Your task to perform on an android device: toggle airplane mode Image 0: 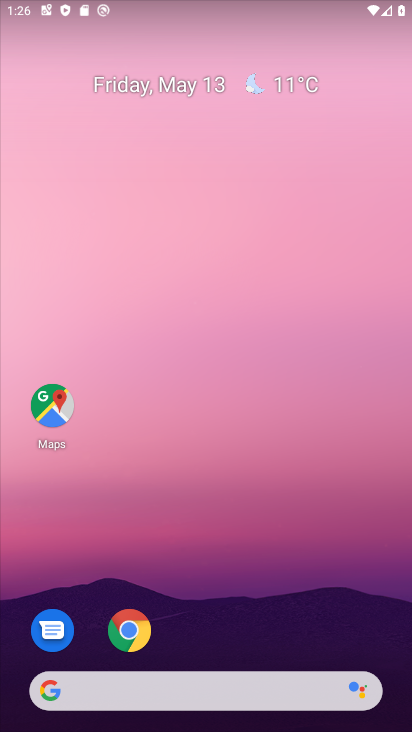
Step 0: drag from (321, 644) to (357, 0)
Your task to perform on an android device: toggle airplane mode Image 1: 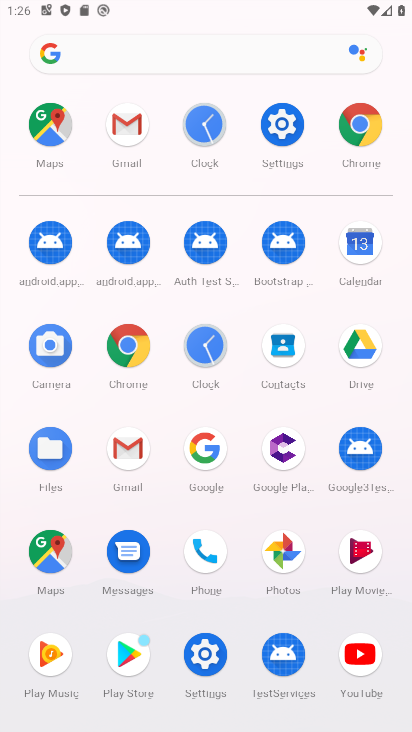
Step 1: click (290, 133)
Your task to perform on an android device: toggle airplane mode Image 2: 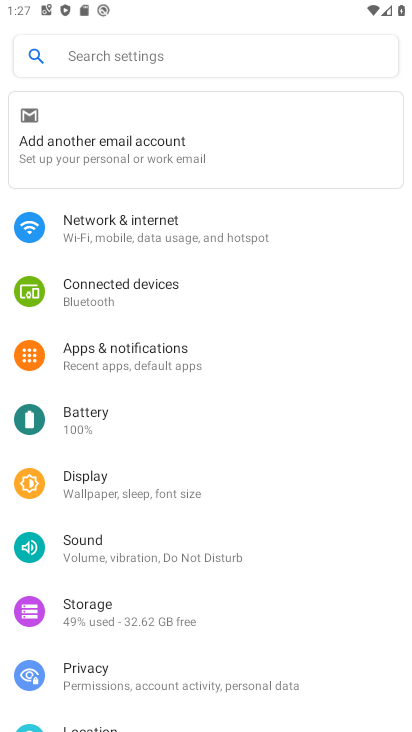
Step 2: click (117, 235)
Your task to perform on an android device: toggle airplane mode Image 3: 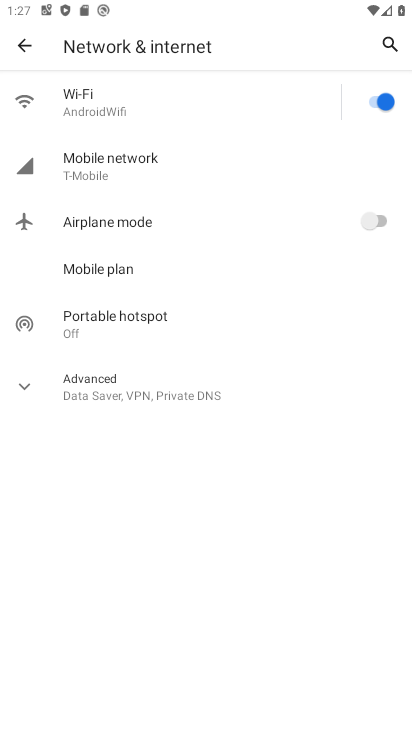
Step 3: click (364, 225)
Your task to perform on an android device: toggle airplane mode Image 4: 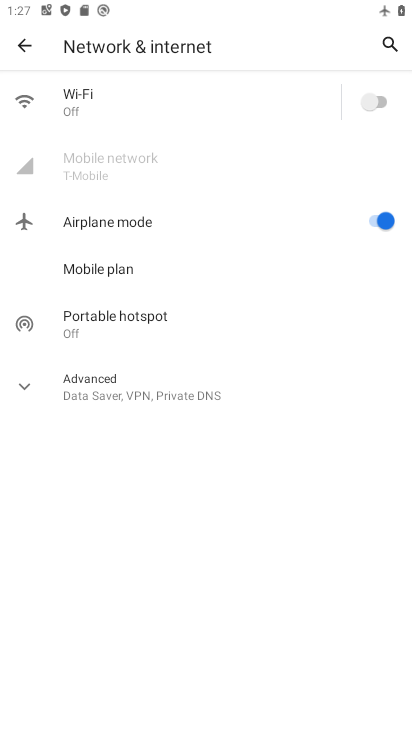
Step 4: task complete